Your task to perform on an android device: turn off improve location accuracy Image 0: 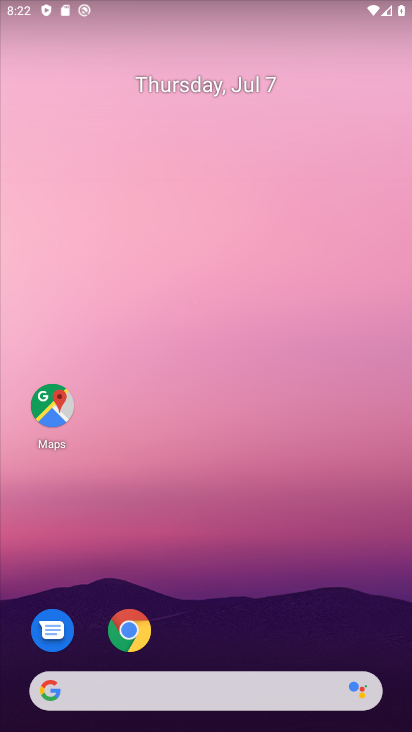
Step 0: drag from (204, 579) to (216, 134)
Your task to perform on an android device: turn off improve location accuracy Image 1: 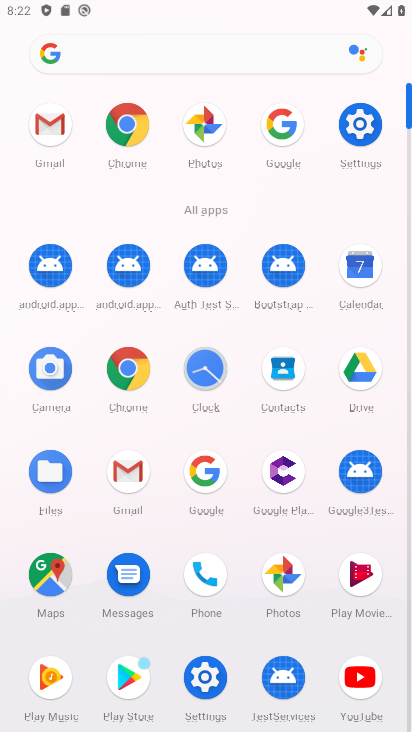
Step 1: click (351, 129)
Your task to perform on an android device: turn off improve location accuracy Image 2: 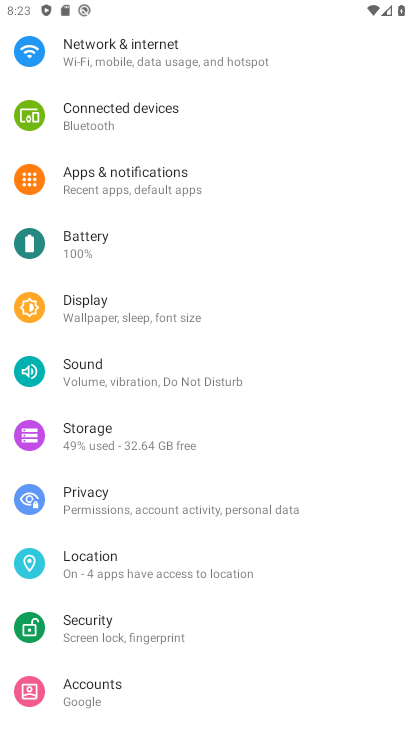
Step 2: click (137, 565)
Your task to perform on an android device: turn off improve location accuracy Image 3: 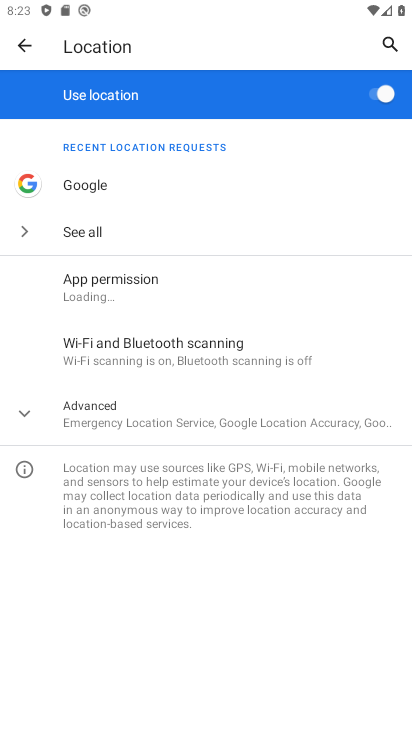
Step 3: click (97, 431)
Your task to perform on an android device: turn off improve location accuracy Image 4: 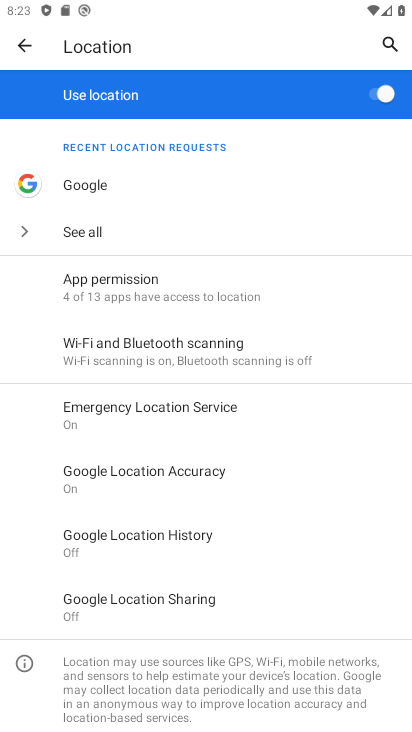
Step 4: click (195, 471)
Your task to perform on an android device: turn off improve location accuracy Image 5: 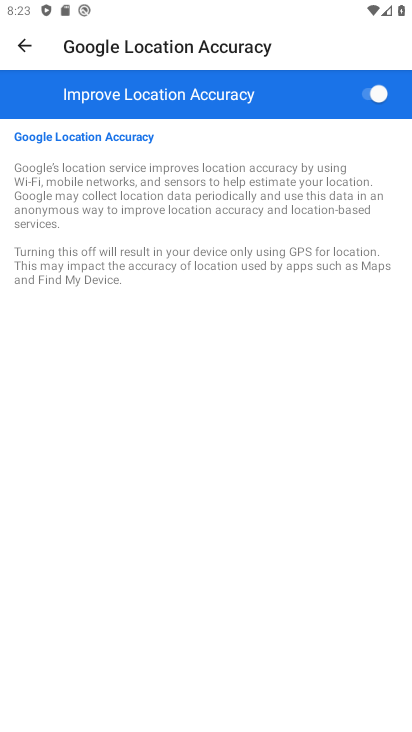
Step 5: click (362, 91)
Your task to perform on an android device: turn off improve location accuracy Image 6: 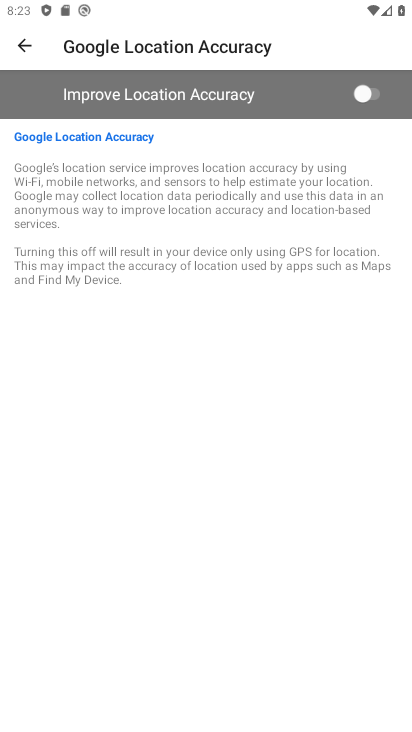
Step 6: task complete